Your task to perform on an android device: change the clock style Image 0: 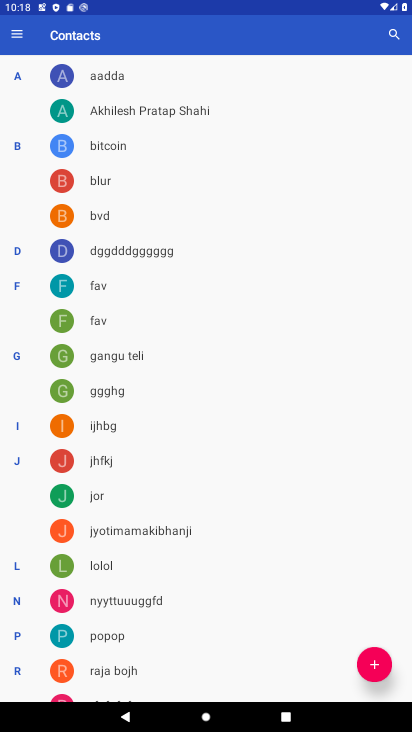
Step 0: press home button
Your task to perform on an android device: change the clock style Image 1: 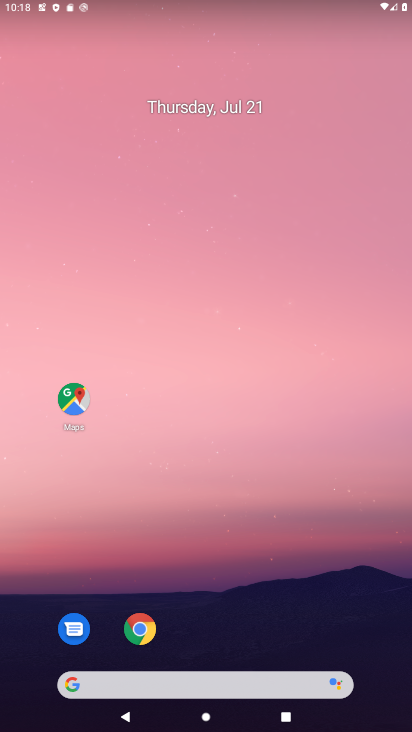
Step 1: drag from (249, 576) to (237, 148)
Your task to perform on an android device: change the clock style Image 2: 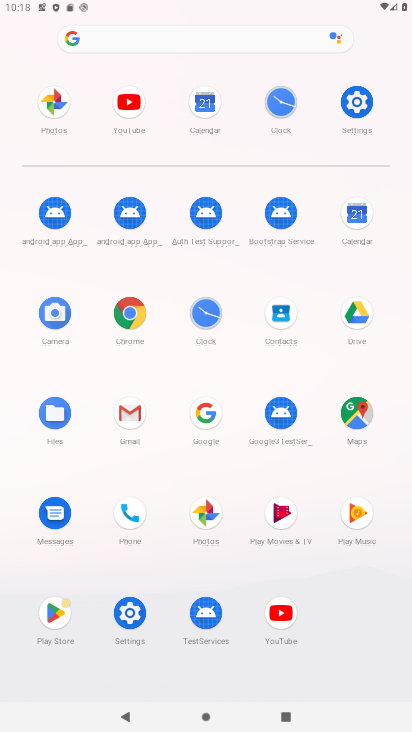
Step 2: click (356, 102)
Your task to perform on an android device: change the clock style Image 3: 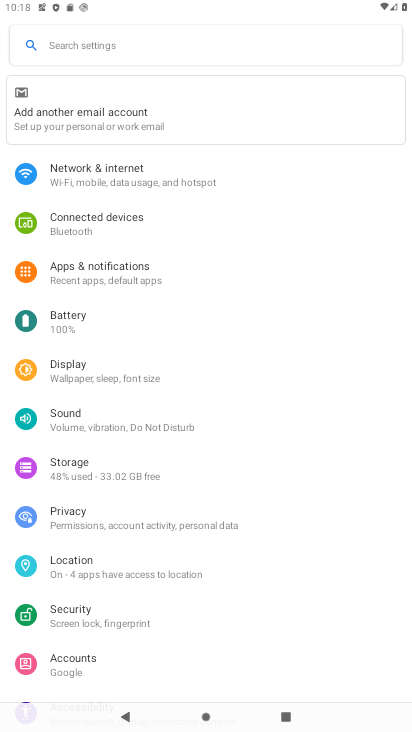
Step 3: press back button
Your task to perform on an android device: change the clock style Image 4: 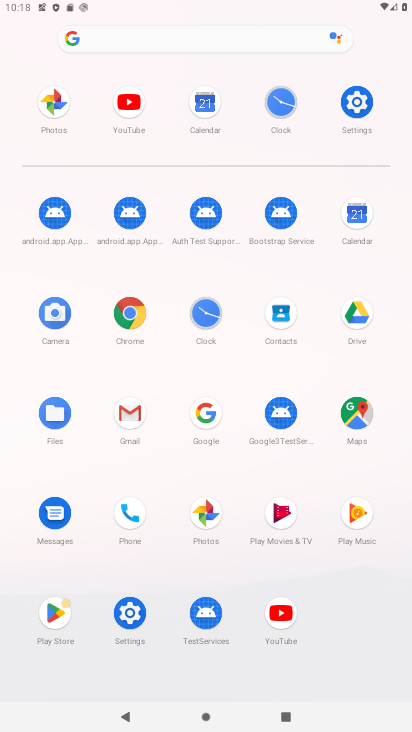
Step 4: click (203, 297)
Your task to perform on an android device: change the clock style Image 5: 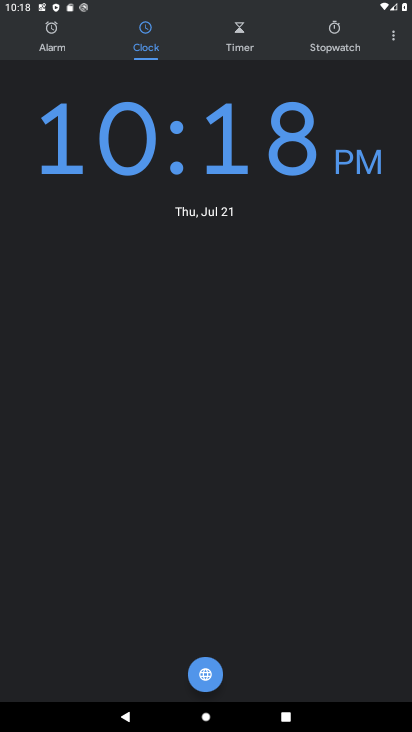
Step 5: click (385, 46)
Your task to perform on an android device: change the clock style Image 6: 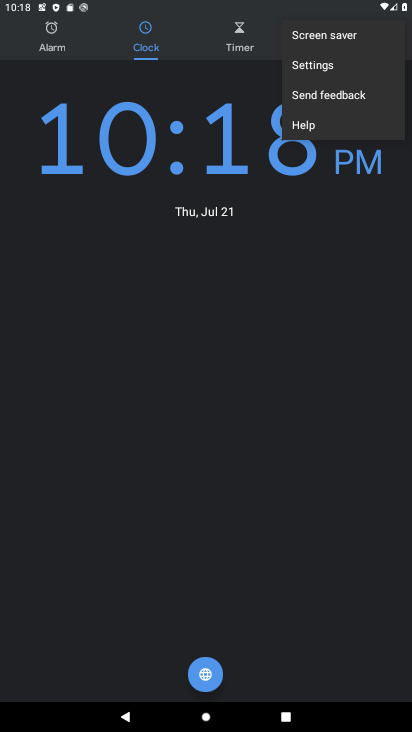
Step 6: click (327, 67)
Your task to perform on an android device: change the clock style Image 7: 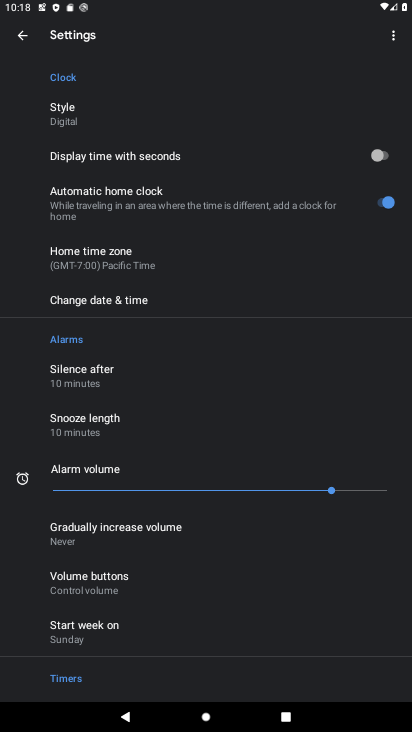
Step 7: click (78, 109)
Your task to perform on an android device: change the clock style Image 8: 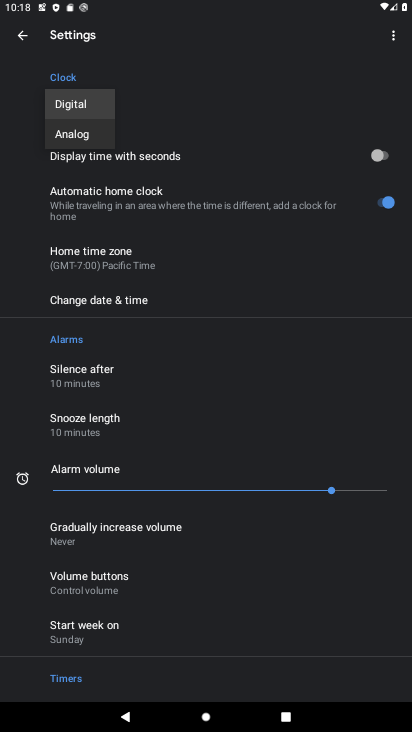
Step 8: click (75, 130)
Your task to perform on an android device: change the clock style Image 9: 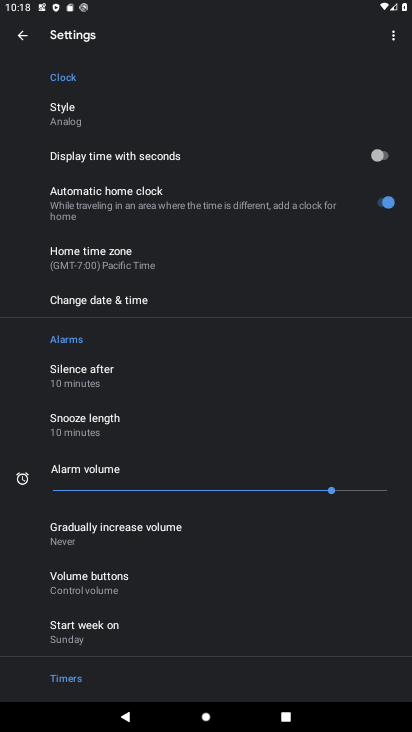
Step 9: task complete